Your task to perform on an android device: open app "Mercado Libre" (install if not already installed) Image 0: 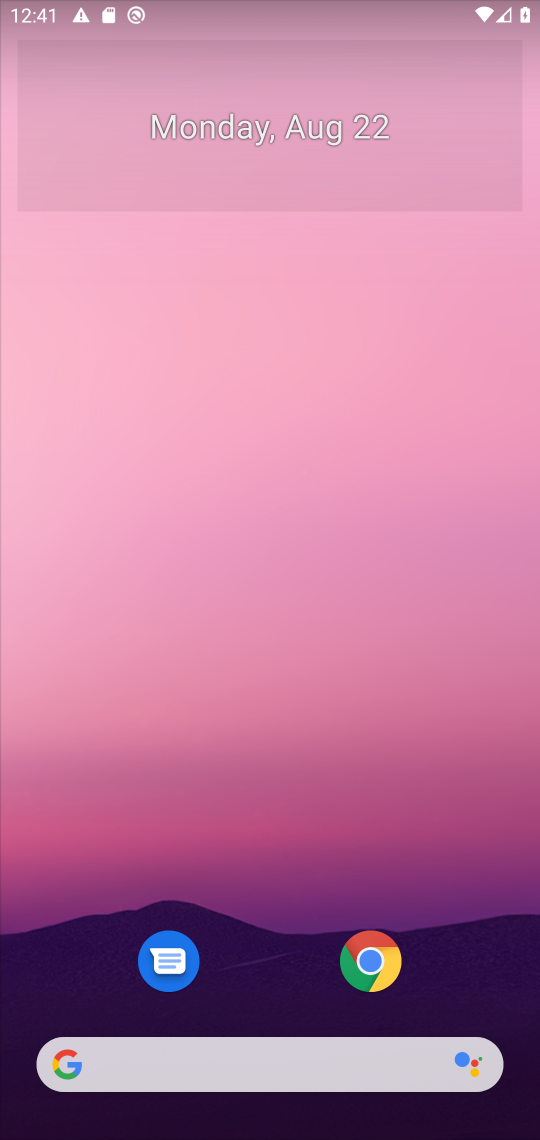
Step 0: press home button
Your task to perform on an android device: open app "Mercado Libre" (install if not already installed) Image 1: 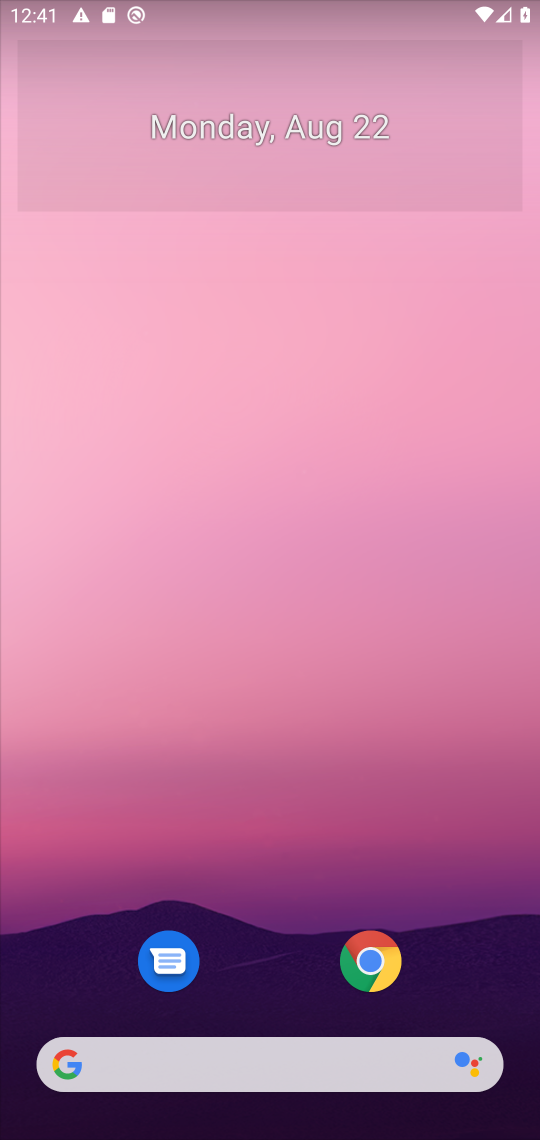
Step 1: drag from (462, 880) to (507, 173)
Your task to perform on an android device: open app "Mercado Libre" (install if not already installed) Image 2: 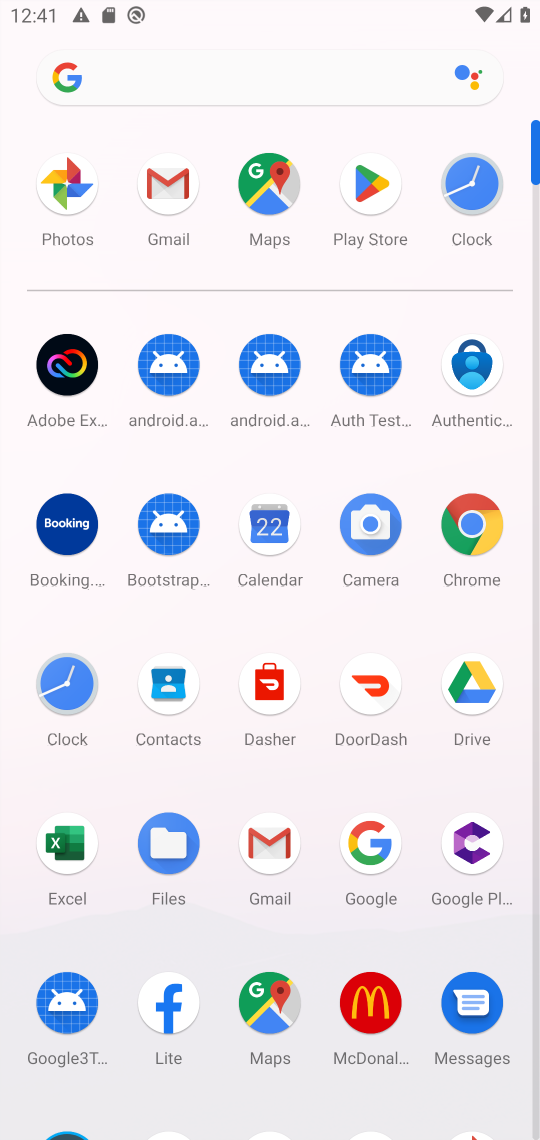
Step 2: click (373, 191)
Your task to perform on an android device: open app "Mercado Libre" (install if not already installed) Image 3: 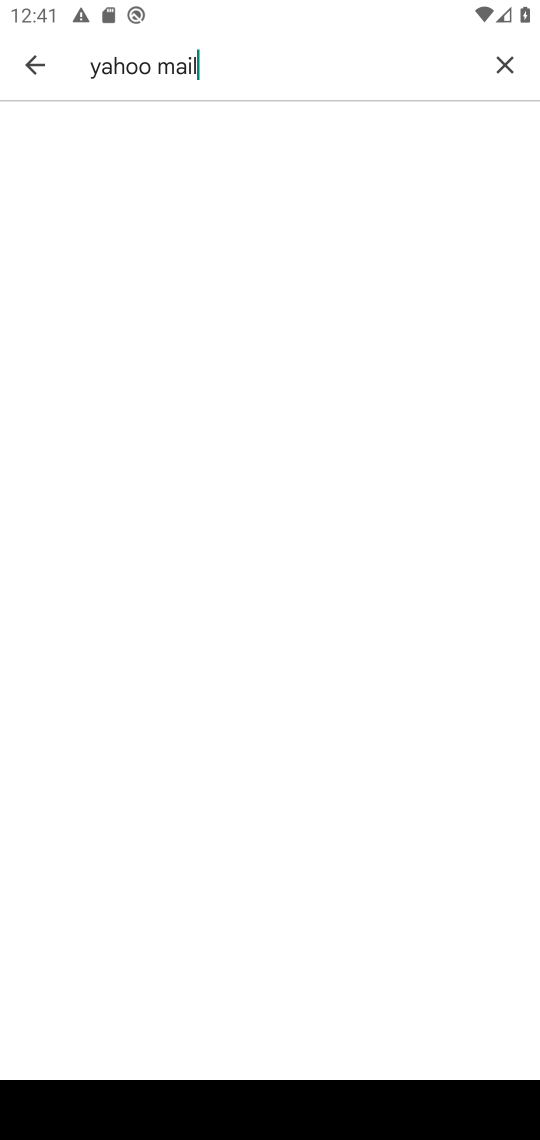
Step 3: press back button
Your task to perform on an android device: open app "Mercado Libre" (install if not already installed) Image 4: 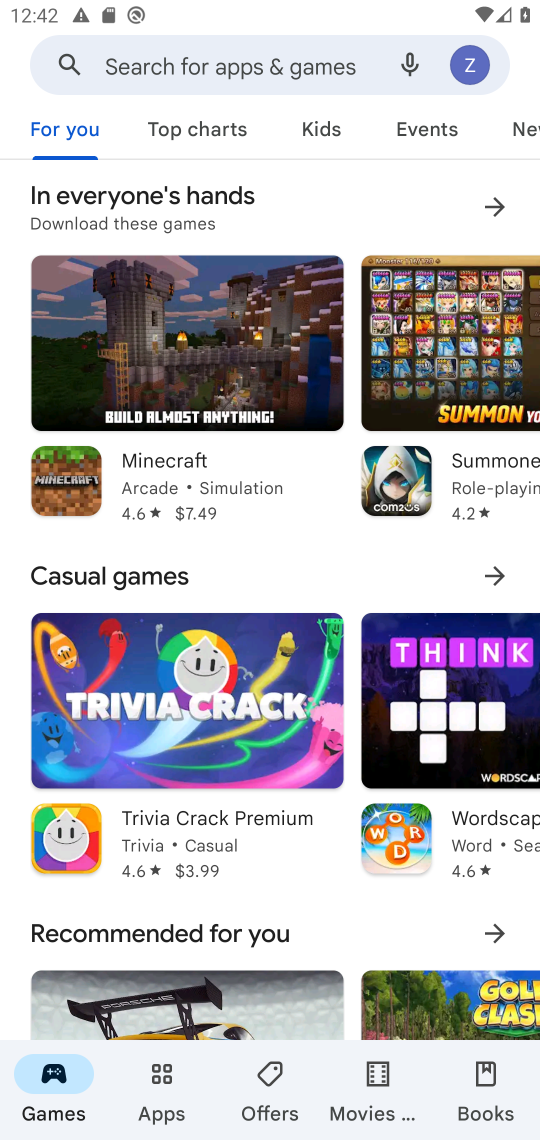
Step 4: click (307, 61)
Your task to perform on an android device: open app "Mercado Libre" (install if not already installed) Image 5: 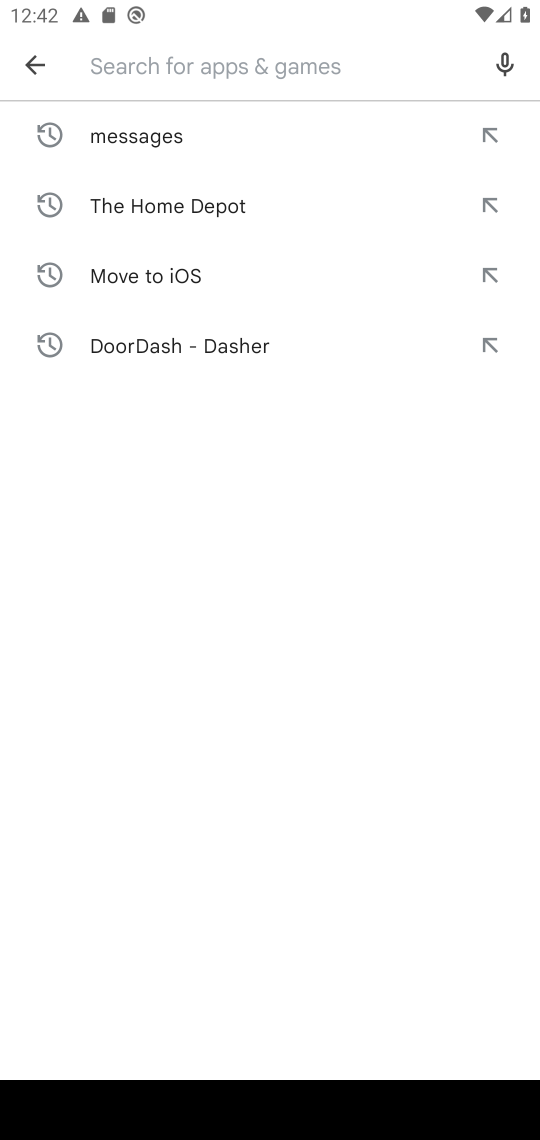
Step 5: type "Mercado Libre"
Your task to perform on an android device: open app "Mercado Libre" (install if not already installed) Image 6: 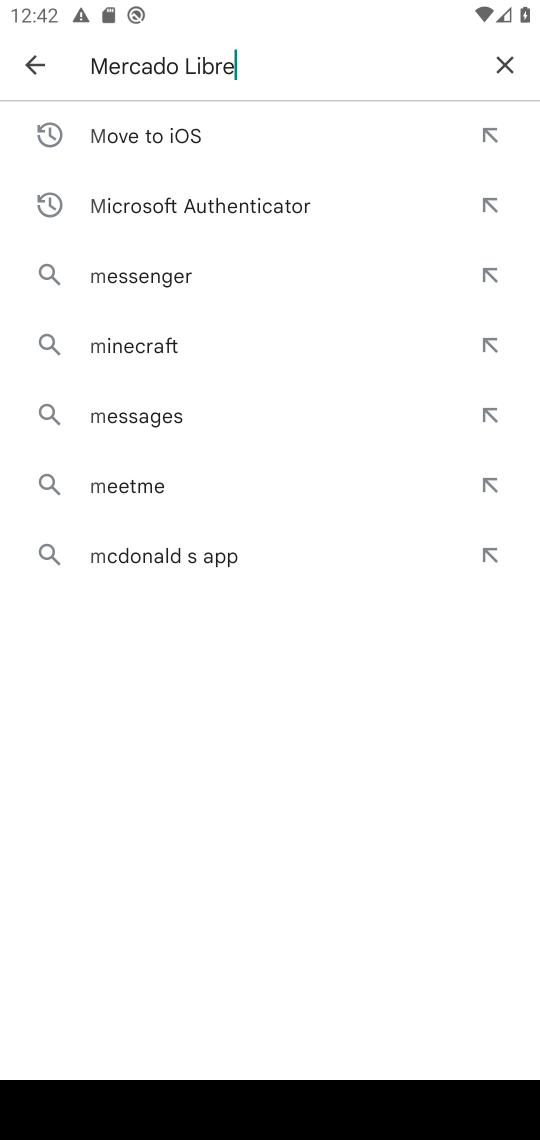
Step 6: press enter
Your task to perform on an android device: open app "Mercado Libre" (install if not already installed) Image 7: 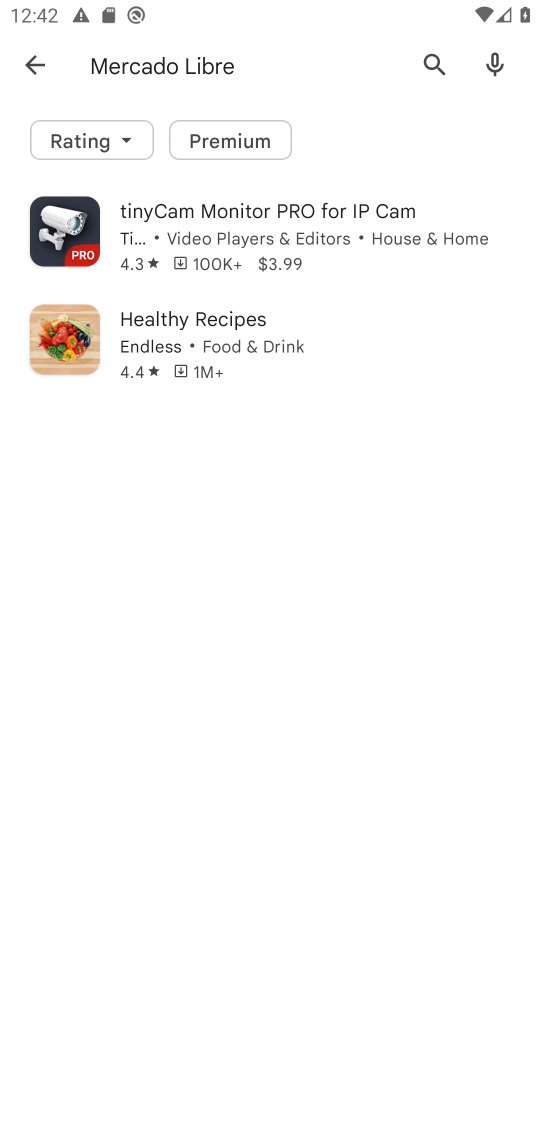
Step 7: task complete